Your task to perform on an android device: clear all cookies in the chrome app Image 0: 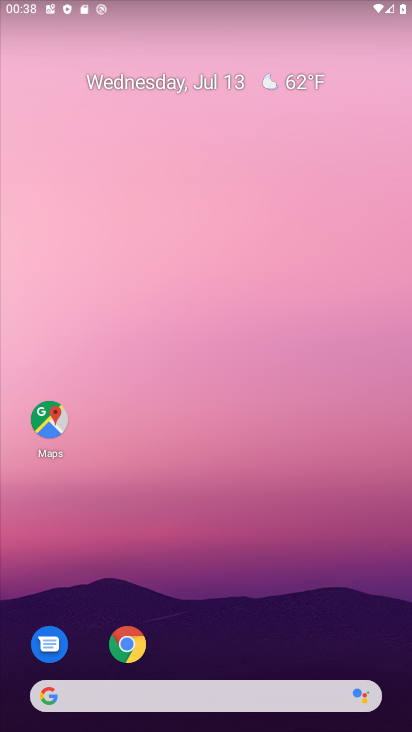
Step 0: click (123, 645)
Your task to perform on an android device: clear all cookies in the chrome app Image 1: 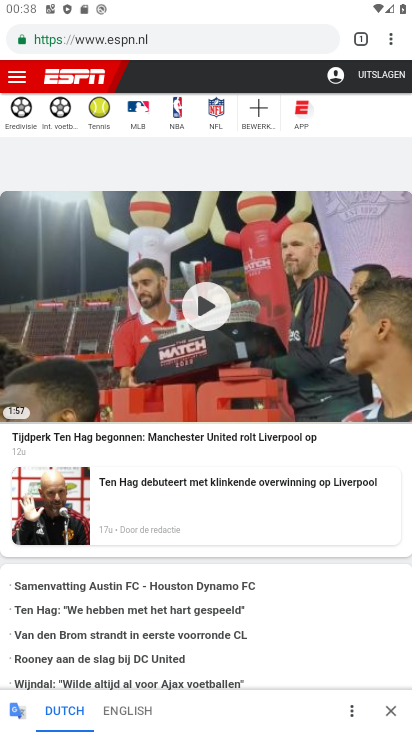
Step 1: click (386, 36)
Your task to perform on an android device: clear all cookies in the chrome app Image 2: 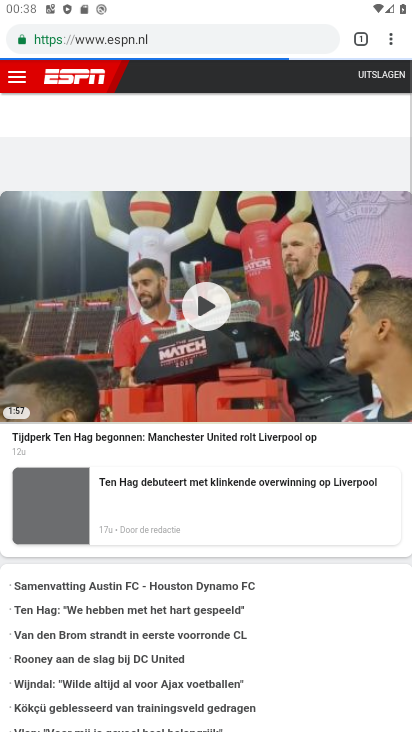
Step 2: click (387, 38)
Your task to perform on an android device: clear all cookies in the chrome app Image 3: 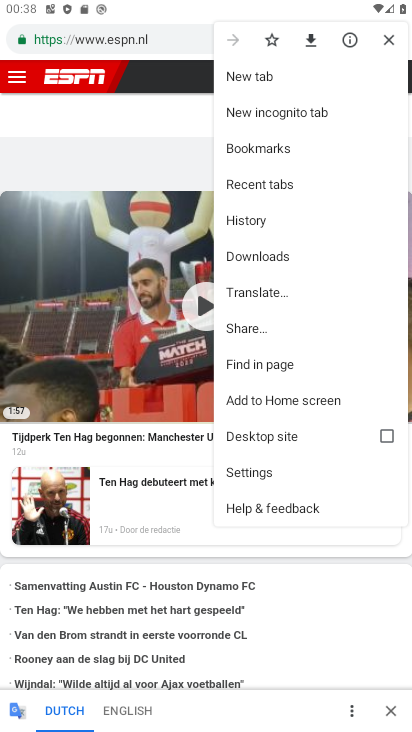
Step 3: click (257, 467)
Your task to perform on an android device: clear all cookies in the chrome app Image 4: 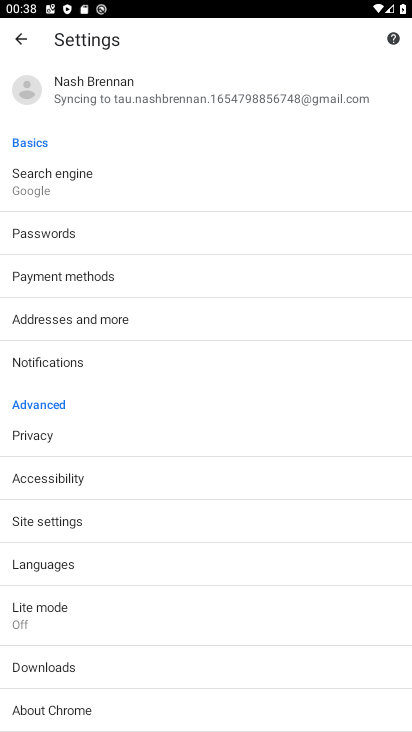
Step 4: click (23, 439)
Your task to perform on an android device: clear all cookies in the chrome app Image 5: 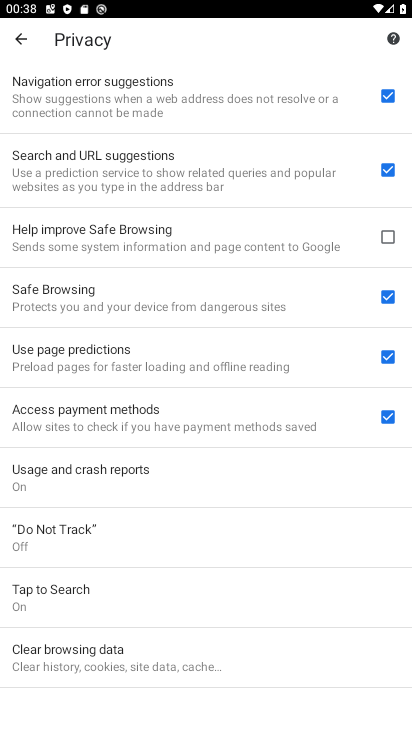
Step 5: click (80, 670)
Your task to perform on an android device: clear all cookies in the chrome app Image 6: 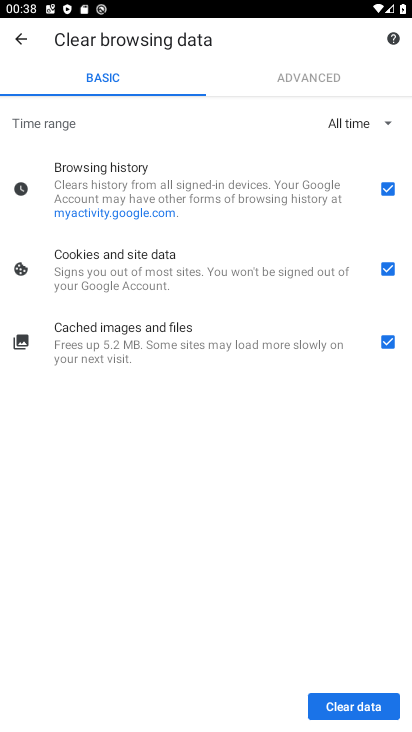
Step 6: click (363, 698)
Your task to perform on an android device: clear all cookies in the chrome app Image 7: 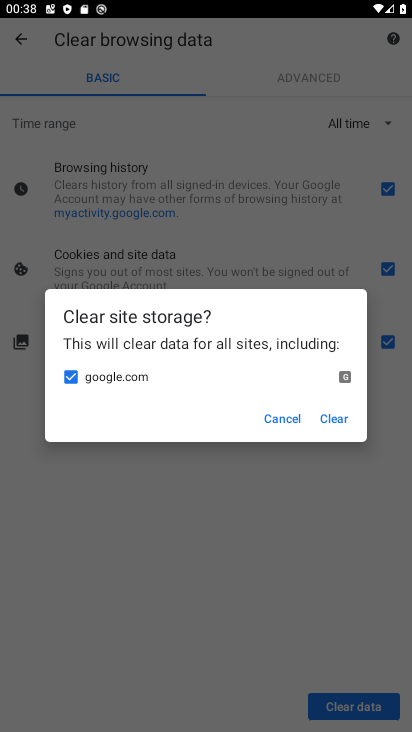
Step 7: click (329, 431)
Your task to perform on an android device: clear all cookies in the chrome app Image 8: 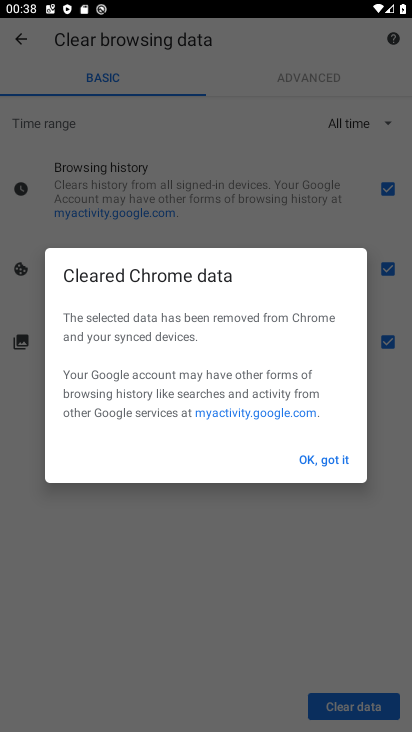
Step 8: click (337, 460)
Your task to perform on an android device: clear all cookies in the chrome app Image 9: 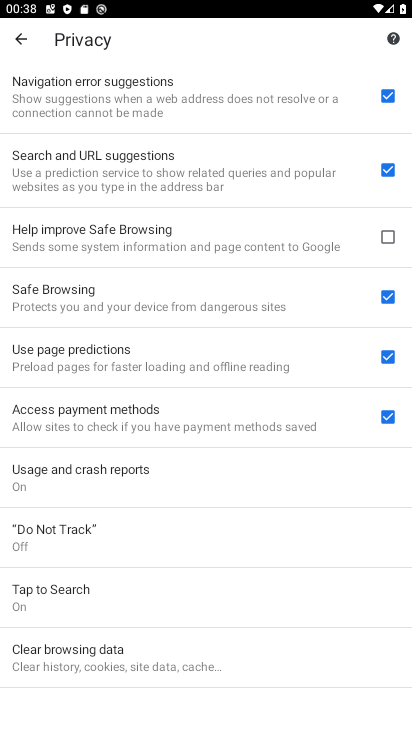
Step 9: task complete